Your task to perform on an android device: turn off sleep mode Image 0: 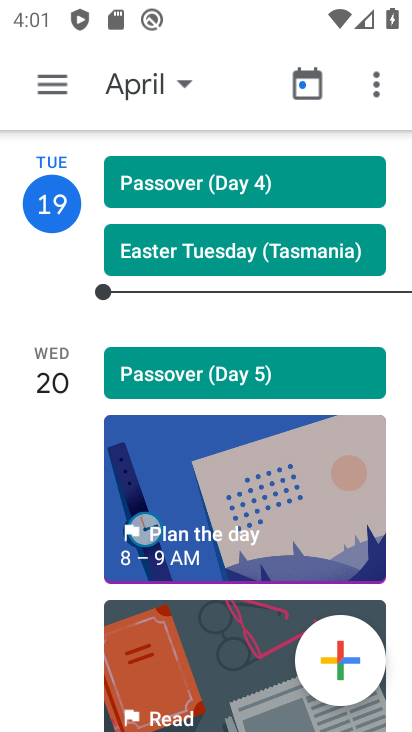
Step 0: press home button
Your task to perform on an android device: turn off sleep mode Image 1: 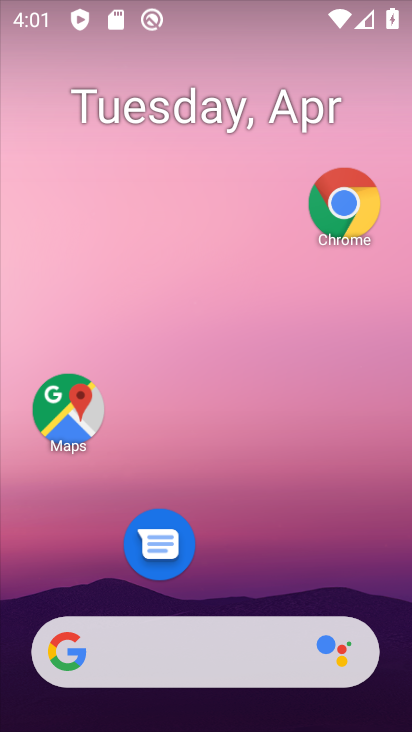
Step 1: drag from (232, 572) to (332, 11)
Your task to perform on an android device: turn off sleep mode Image 2: 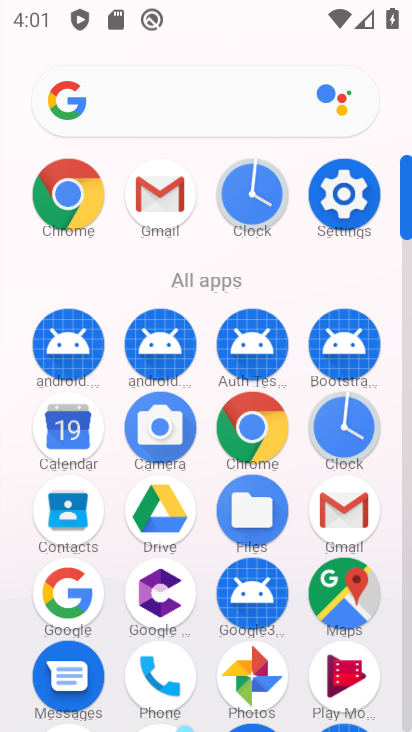
Step 2: click (345, 235)
Your task to perform on an android device: turn off sleep mode Image 3: 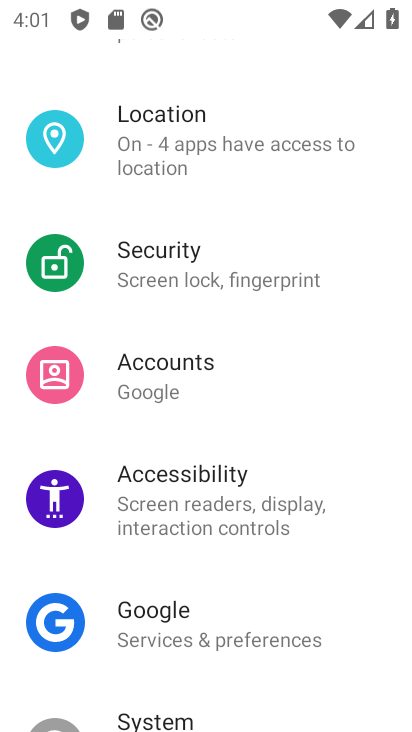
Step 3: drag from (226, 150) to (156, 725)
Your task to perform on an android device: turn off sleep mode Image 4: 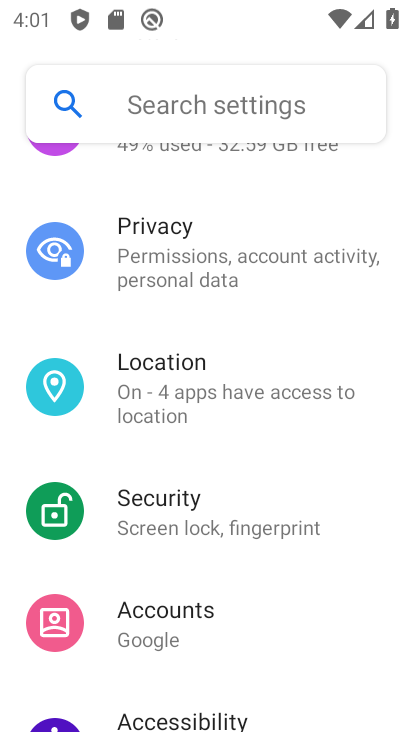
Step 4: click (198, 95)
Your task to perform on an android device: turn off sleep mode Image 5: 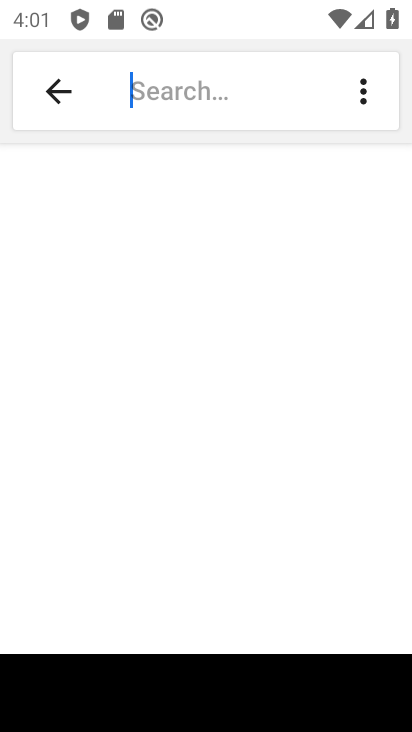
Step 5: type "sleep mode"
Your task to perform on an android device: turn off sleep mode Image 6: 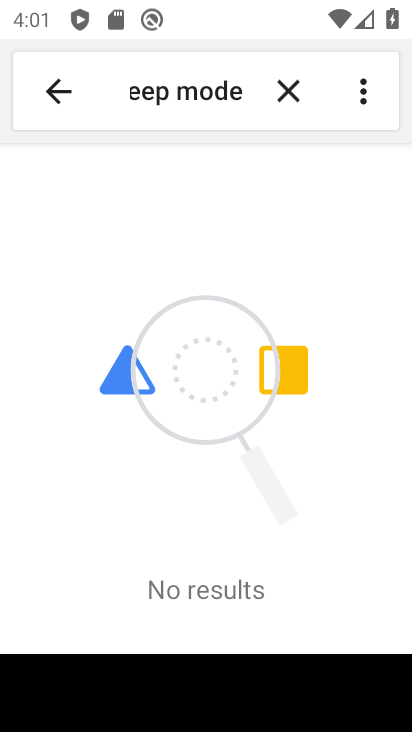
Step 6: task complete